Your task to perform on an android device: Clear the cart on bestbuy.com. Search for panasonic triple a on bestbuy.com, select the first entry, add it to the cart, then select checkout. Image 0: 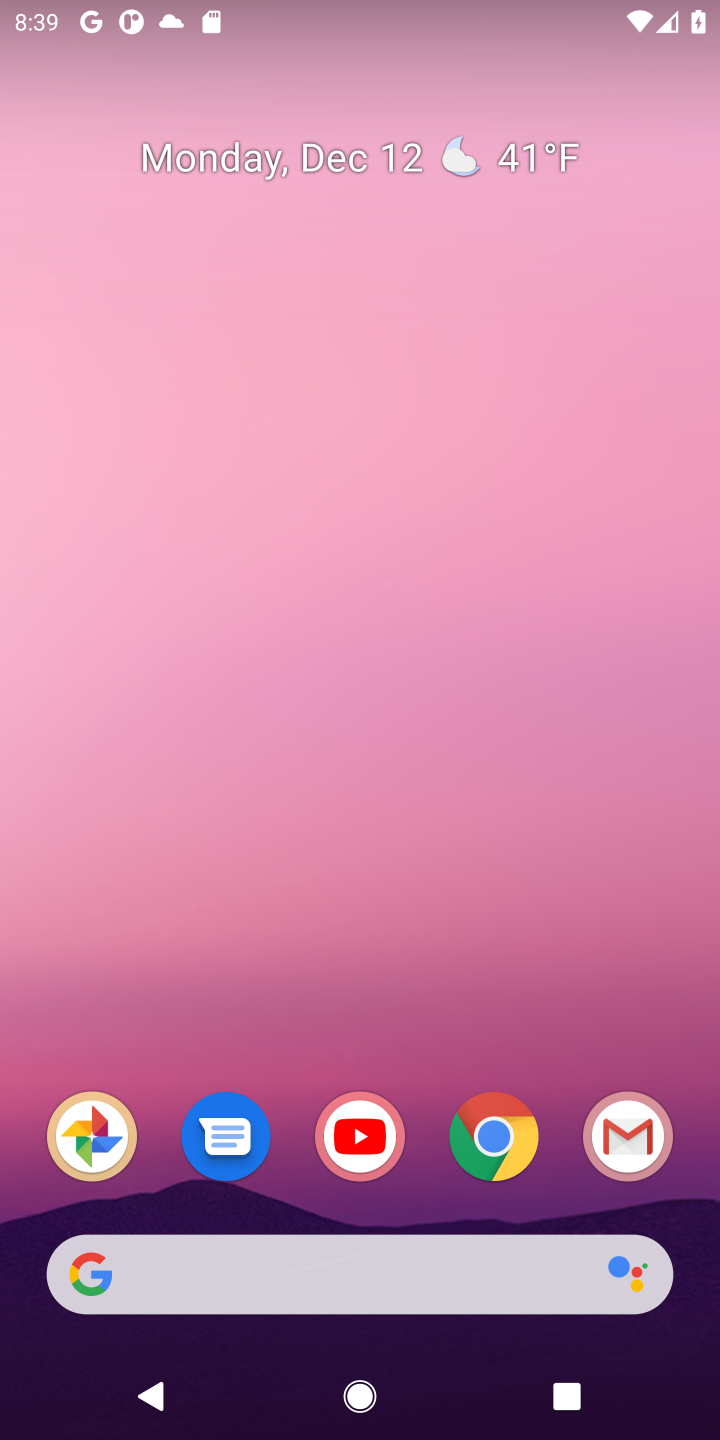
Step 0: click (498, 1143)
Your task to perform on an android device: Clear the cart on bestbuy.com. Search for panasonic triple a on bestbuy.com, select the first entry, add it to the cart, then select checkout. Image 1: 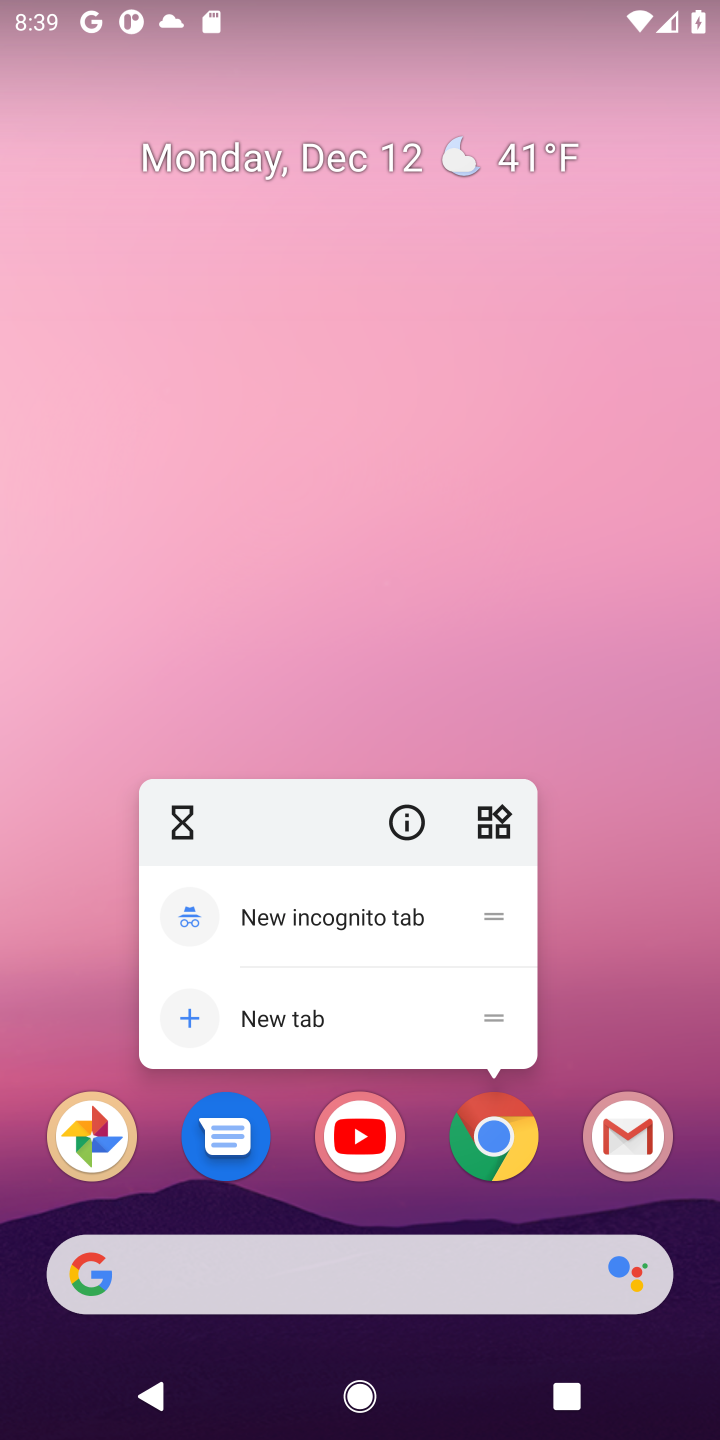
Step 1: click (498, 1143)
Your task to perform on an android device: Clear the cart on bestbuy.com. Search for panasonic triple a on bestbuy.com, select the first entry, add it to the cart, then select checkout. Image 2: 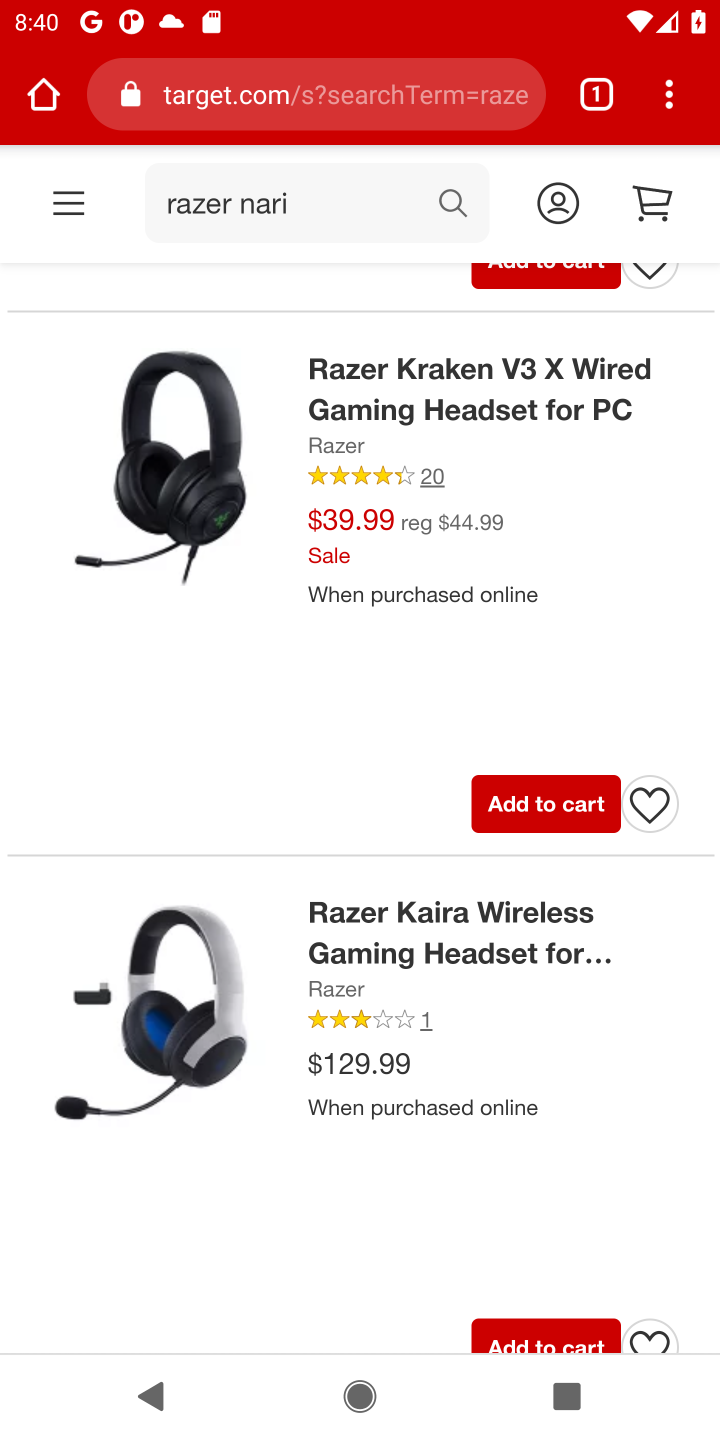
Step 2: click (261, 110)
Your task to perform on an android device: Clear the cart on bestbuy.com. Search for panasonic triple a on bestbuy.com, select the first entry, add it to the cart, then select checkout. Image 3: 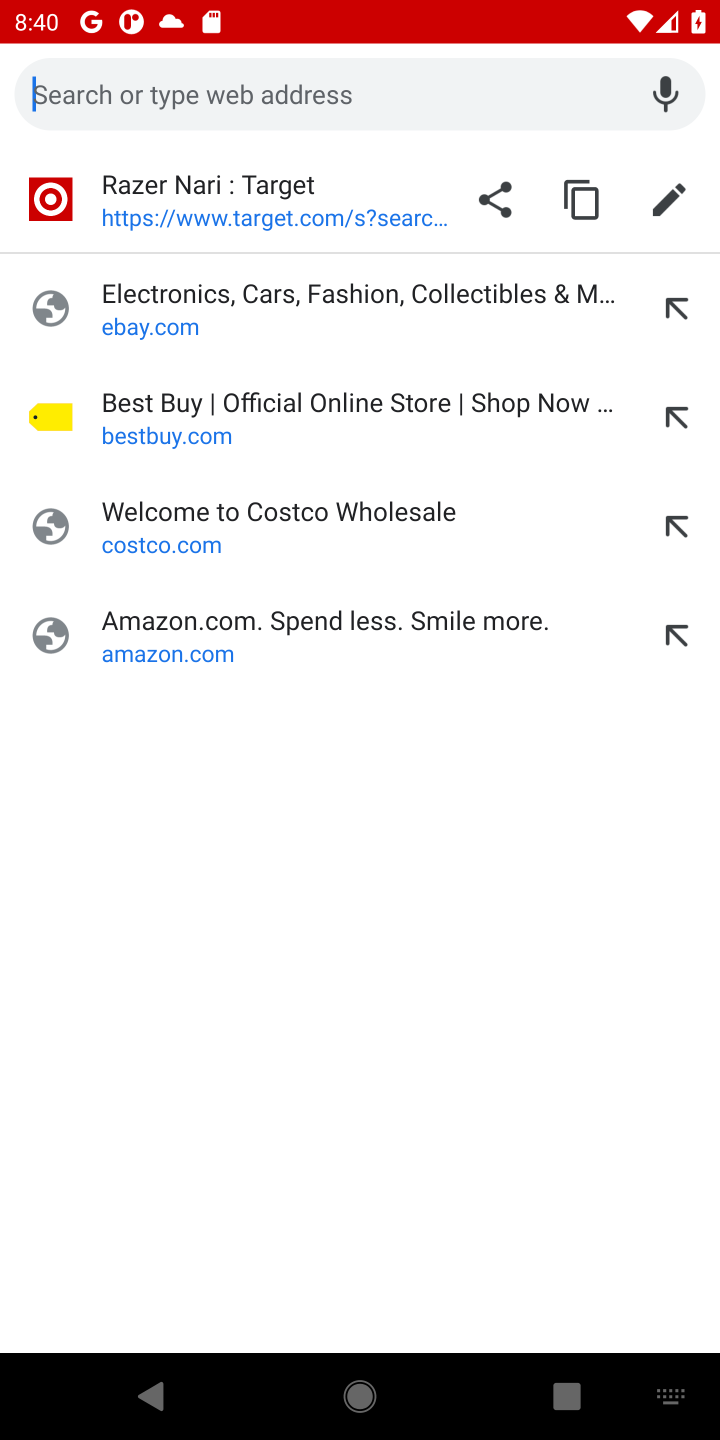
Step 3: click (135, 430)
Your task to perform on an android device: Clear the cart on bestbuy.com. Search for panasonic triple a on bestbuy.com, select the first entry, add it to the cart, then select checkout. Image 4: 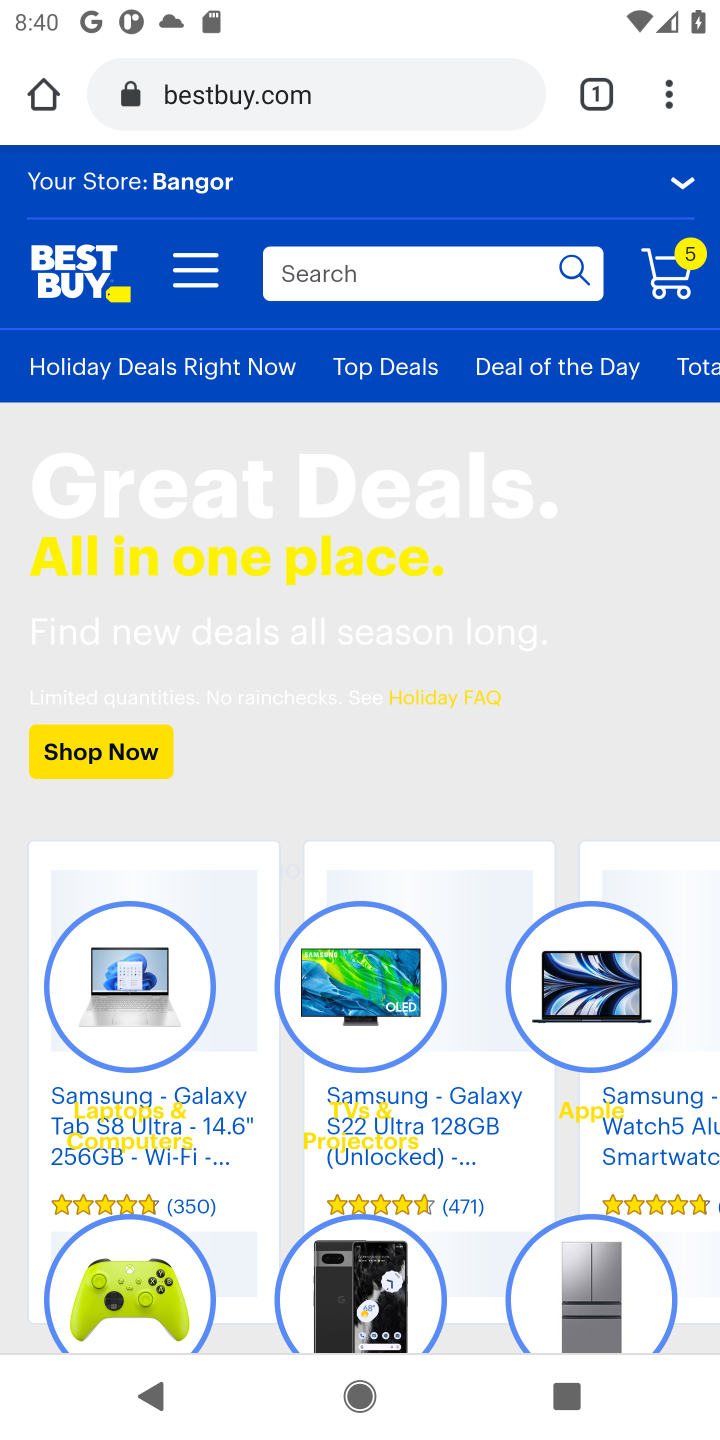
Step 4: click (679, 275)
Your task to perform on an android device: Clear the cart on bestbuy.com. Search for panasonic triple a on bestbuy.com, select the first entry, add it to the cart, then select checkout. Image 5: 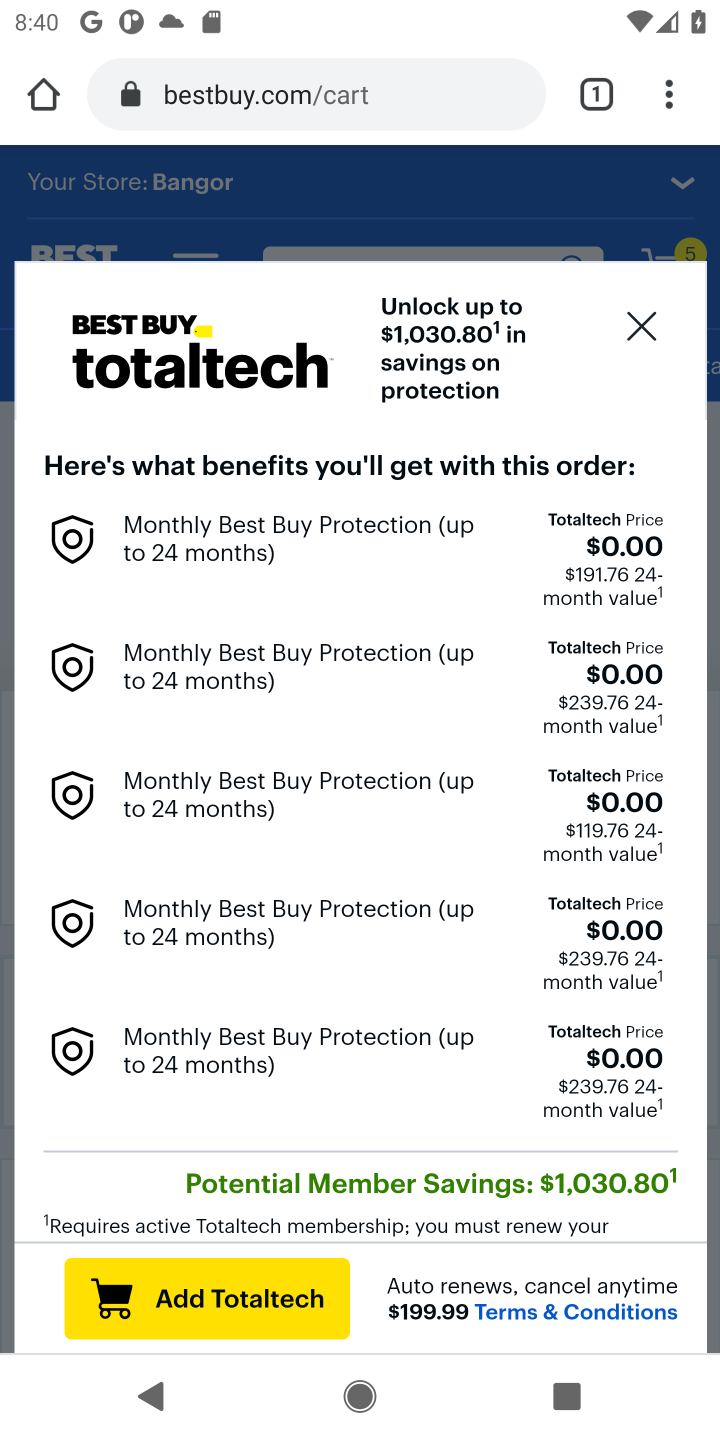
Step 5: click (651, 314)
Your task to perform on an android device: Clear the cart on bestbuy.com. Search for panasonic triple a on bestbuy.com, select the first entry, add it to the cart, then select checkout. Image 6: 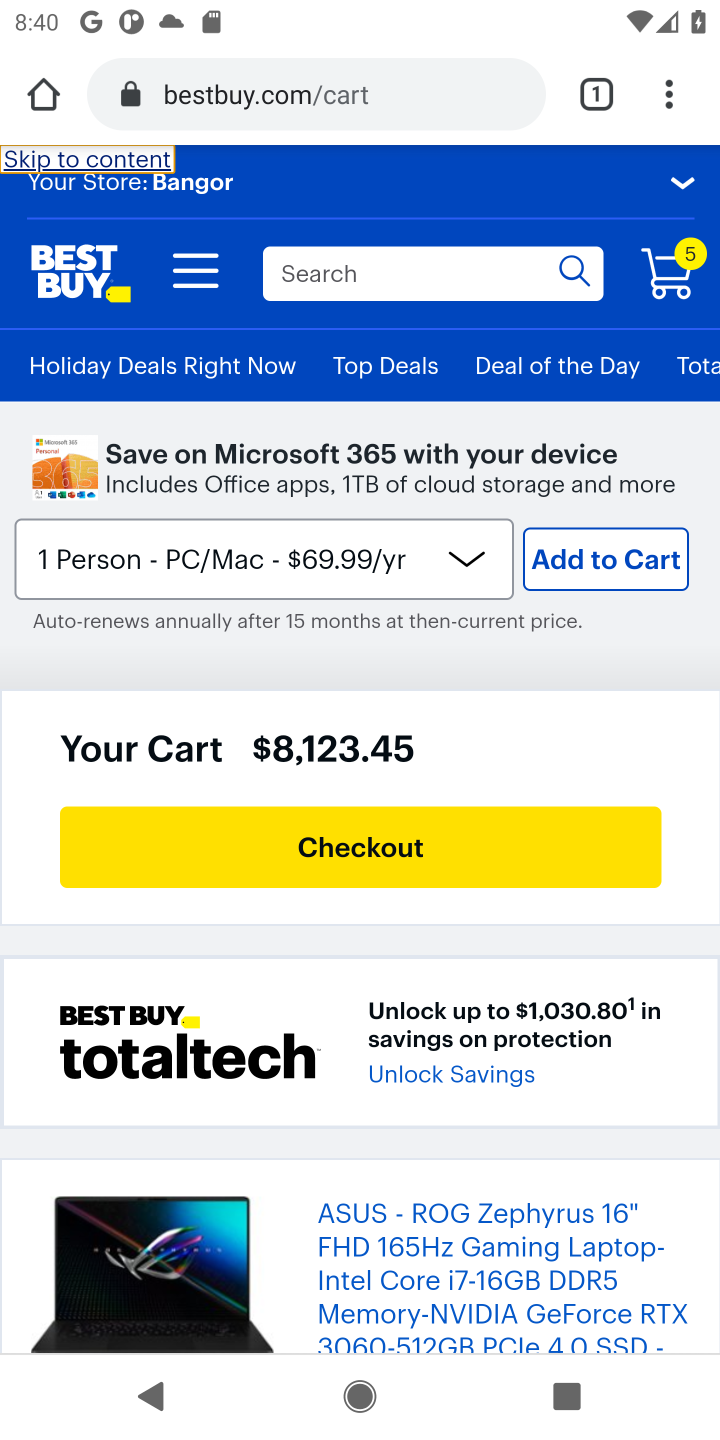
Step 6: drag from (361, 896) to (376, 417)
Your task to perform on an android device: Clear the cart on bestbuy.com. Search for panasonic triple a on bestbuy.com, select the first entry, add it to the cart, then select checkout. Image 7: 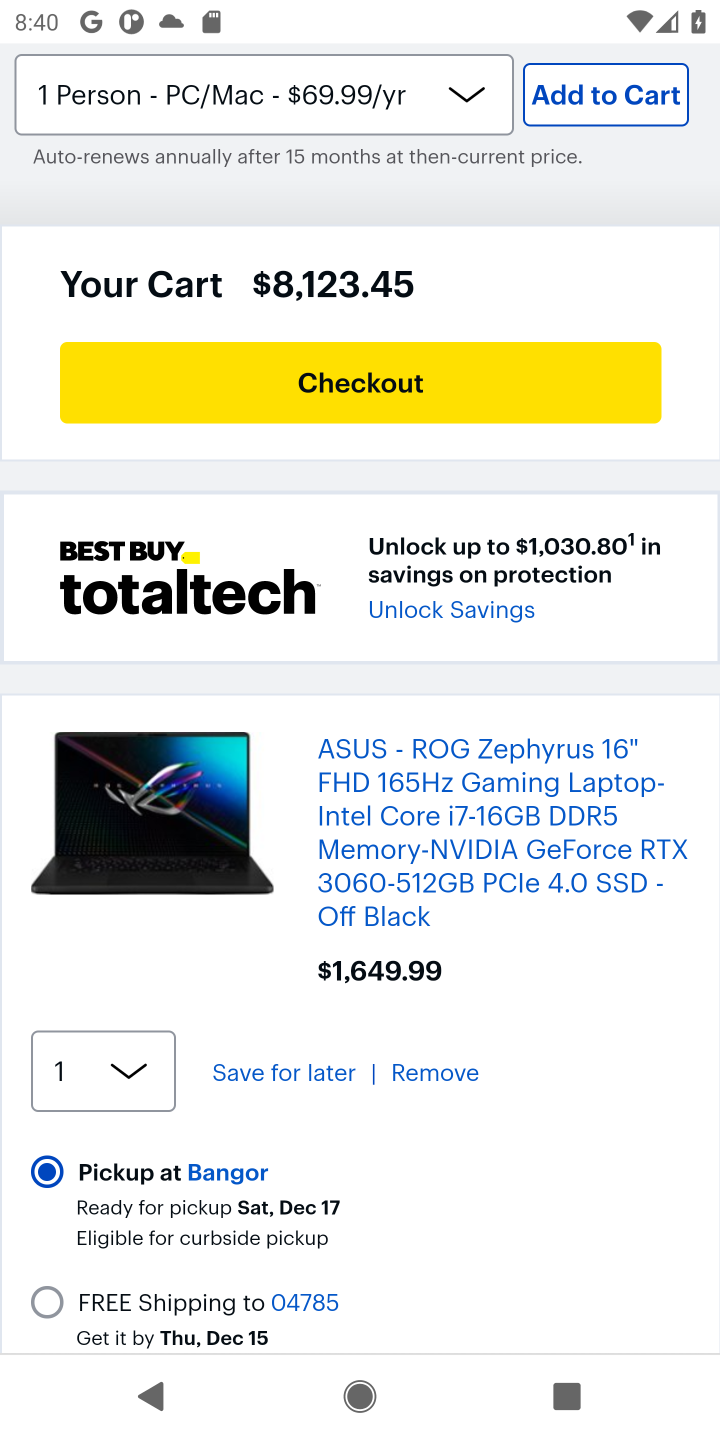
Step 7: click (432, 1082)
Your task to perform on an android device: Clear the cart on bestbuy.com. Search for panasonic triple a on bestbuy.com, select the first entry, add it to the cart, then select checkout. Image 8: 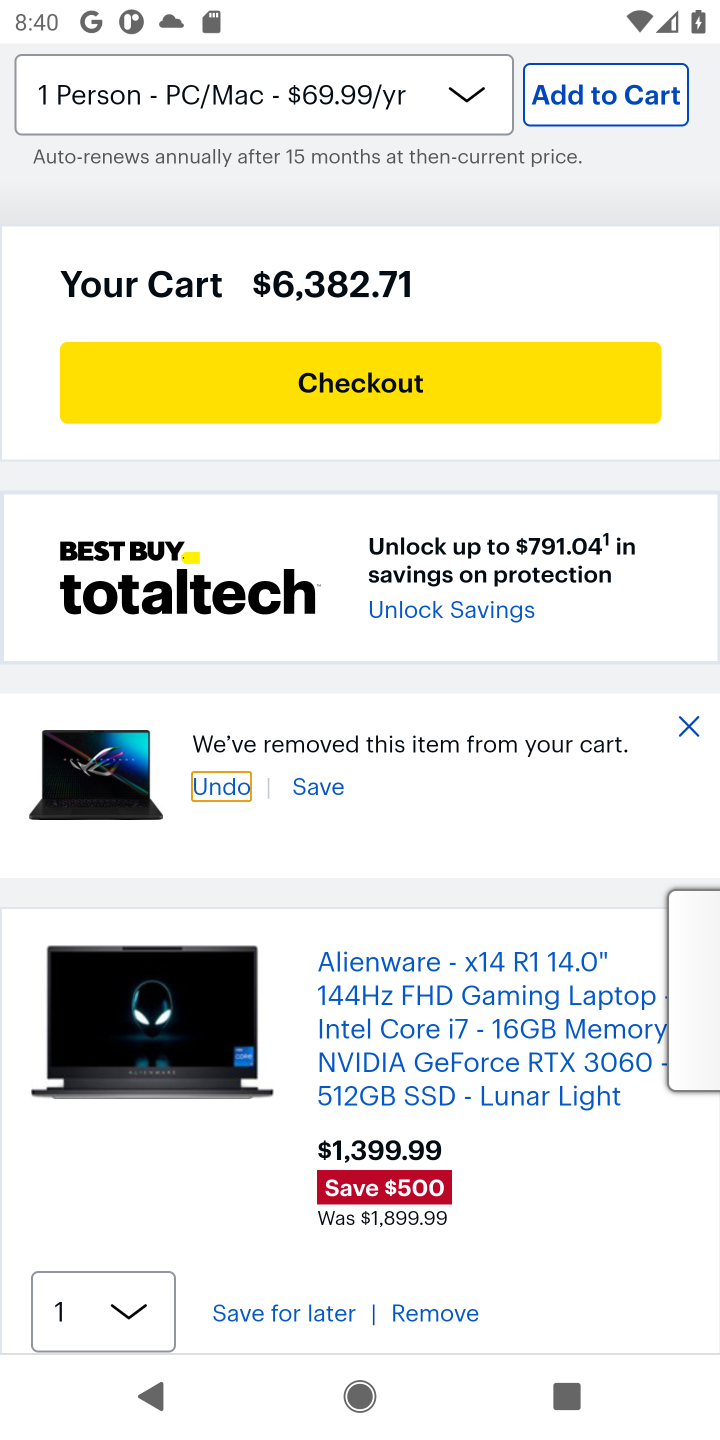
Step 8: drag from (458, 827) to (449, 605)
Your task to perform on an android device: Clear the cart on bestbuy.com. Search for panasonic triple a on bestbuy.com, select the first entry, add it to the cart, then select checkout. Image 9: 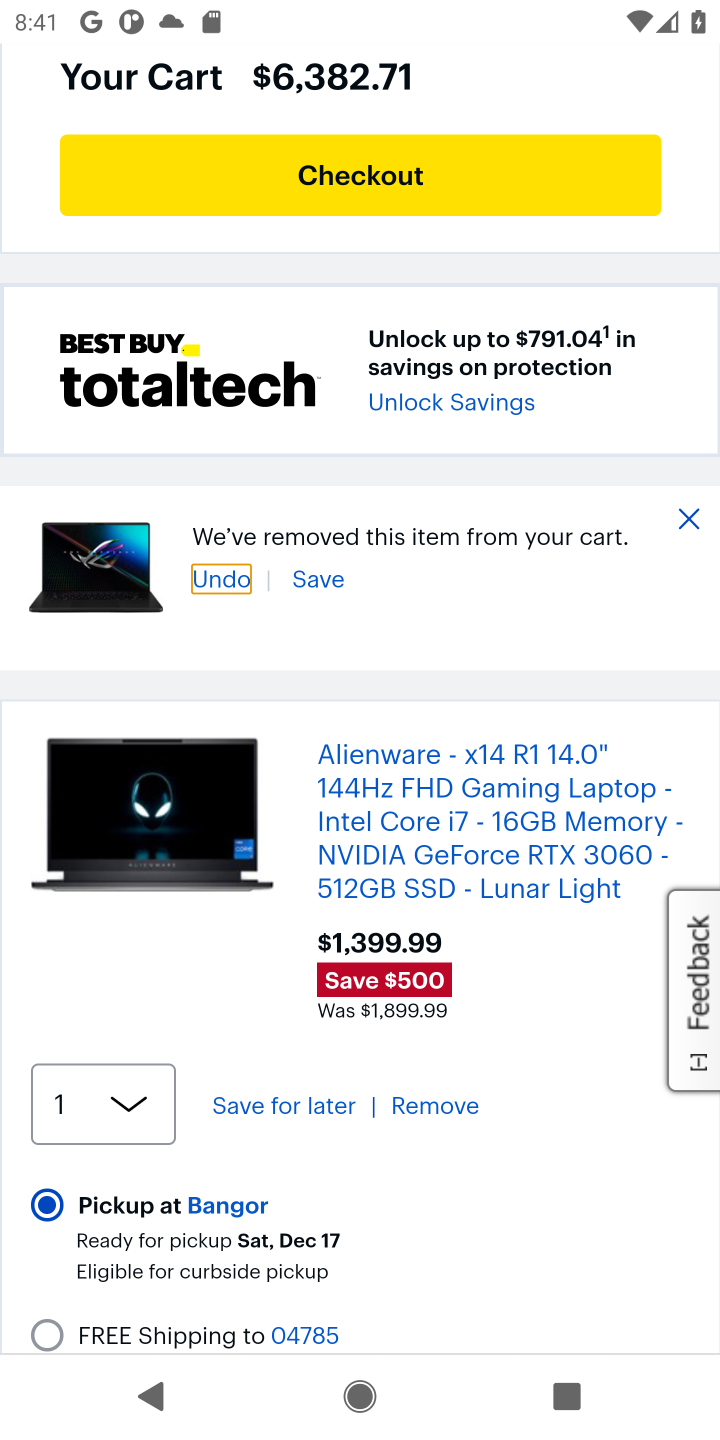
Step 9: click (419, 1111)
Your task to perform on an android device: Clear the cart on bestbuy.com. Search for panasonic triple a on bestbuy.com, select the first entry, add it to the cart, then select checkout. Image 10: 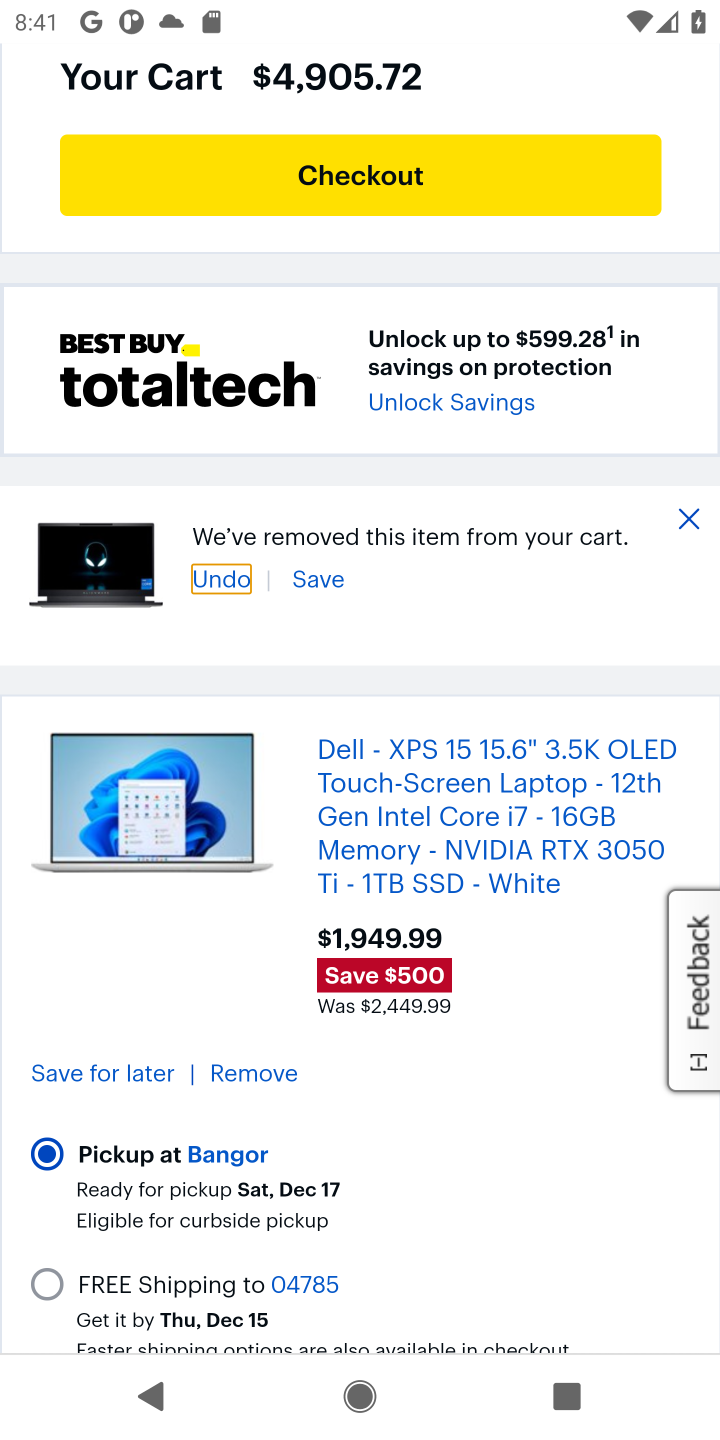
Step 10: click (262, 1076)
Your task to perform on an android device: Clear the cart on bestbuy.com. Search for panasonic triple a on bestbuy.com, select the first entry, add it to the cart, then select checkout. Image 11: 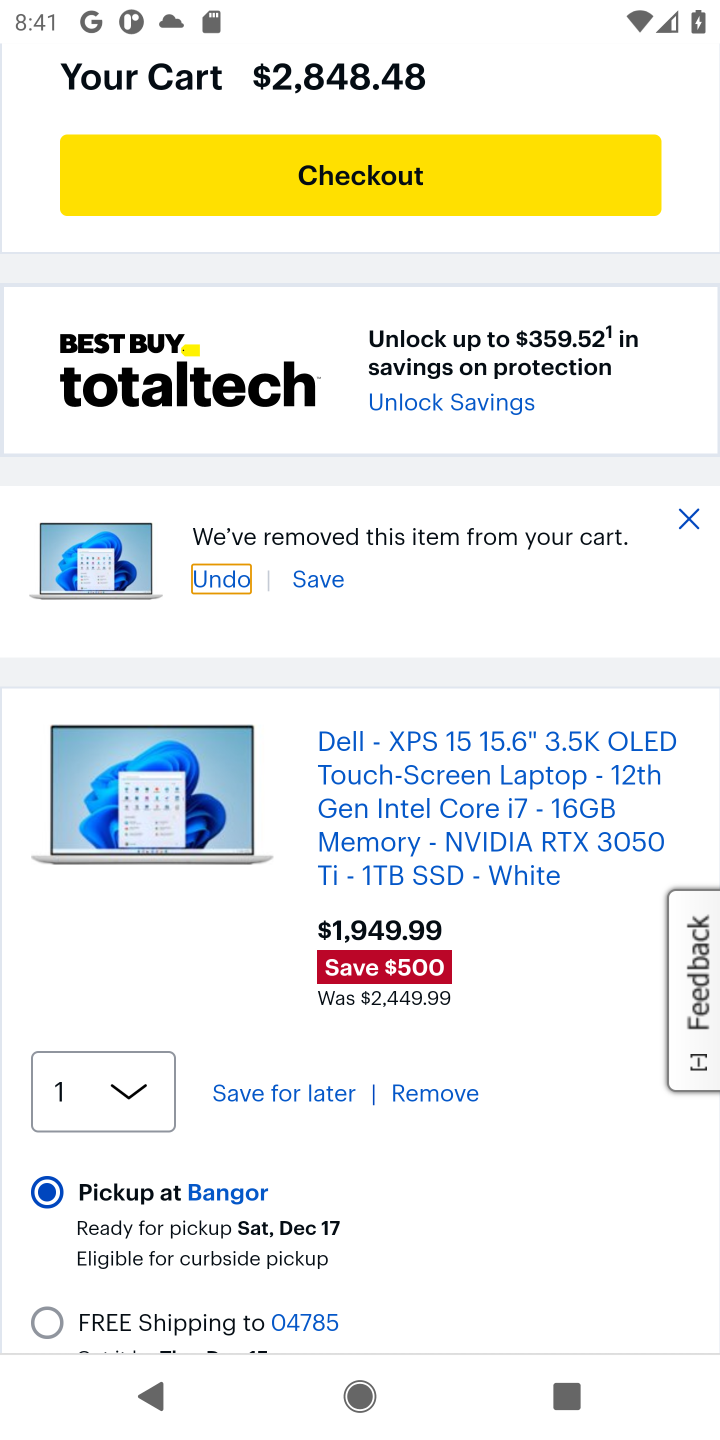
Step 11: click (426, 1099)
Your task to perform on an android device: Clear the cart on bestbuy.com. Search for panasonic triple a on bestbuy.com, select the first entry, add it to the cart, then select checkout. Image 12: 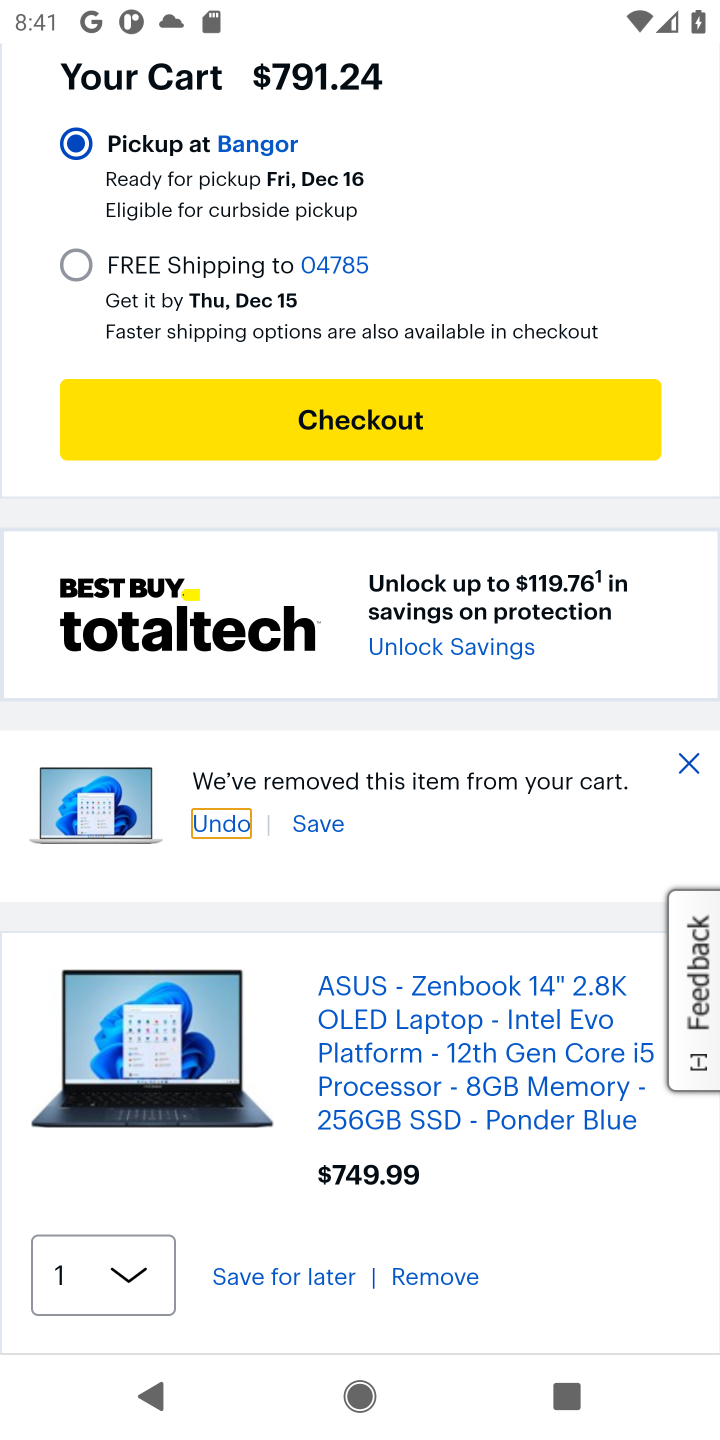
Step 12: click (409, 1274)
Your task to perform on an android device: Clear the cart on bestbuy.com. Search for panasonic triple a on bestbuy.com, select the first entry, add it to the cart, then select checkout. Image 13: 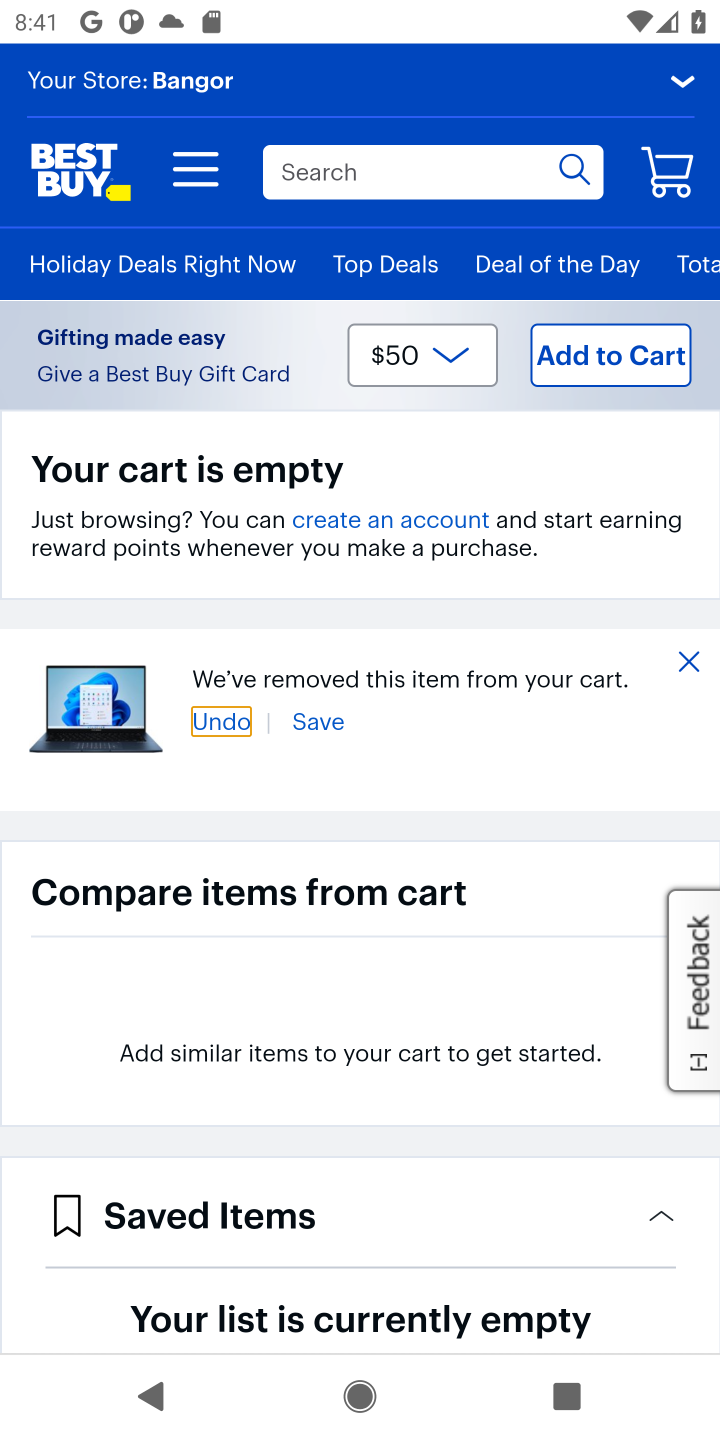
Step 13: click (350, 177)
Your task to perform on an android device: Clear the cart on bestbuy.com. Search for panasonic triple a on bestbuy.com, select the first entry, add it to the cart, then select checkout. Image 14: 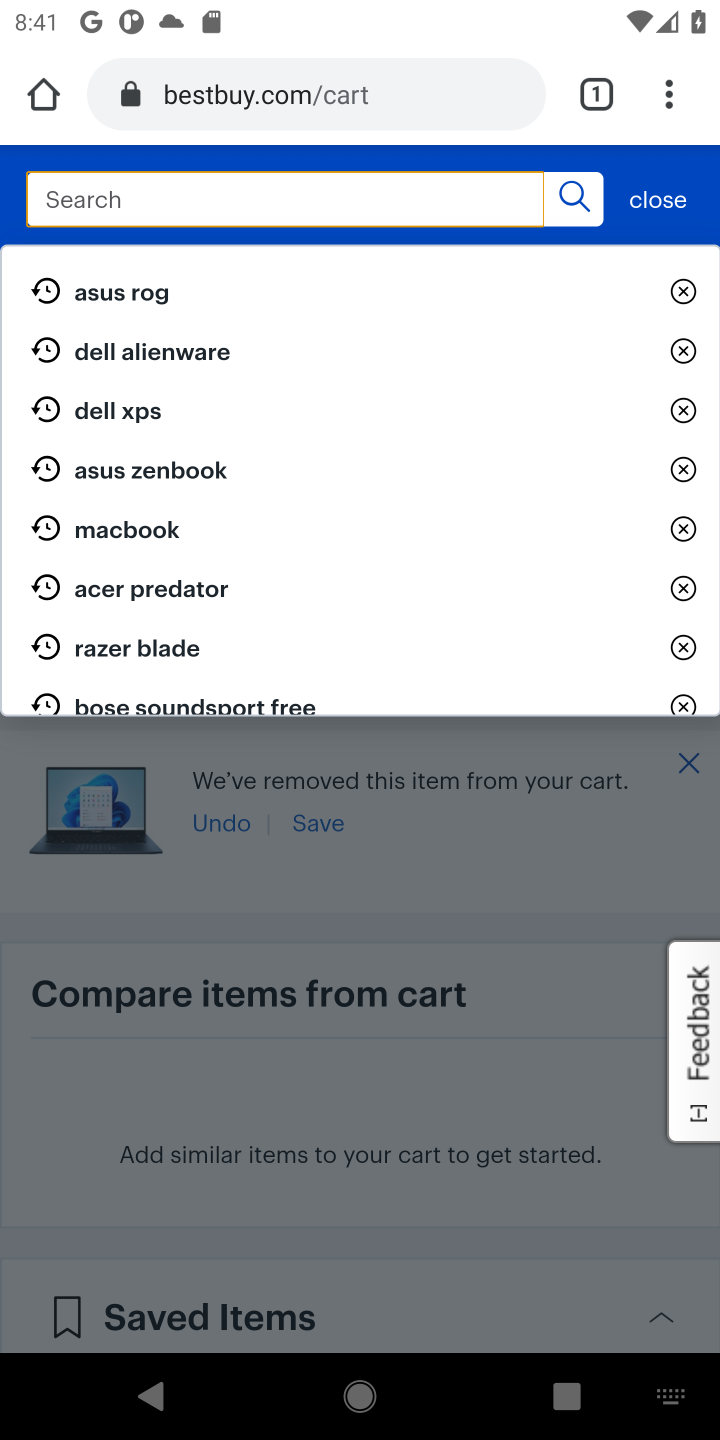
Step 14: type "panasonic triple a "
Your task to perform on an android device: Clear the cart on bestbuy.com. Search for panasonic triple a on bestbuy.com, select the first entry, add it to the cart, then select checkout. Image 15: 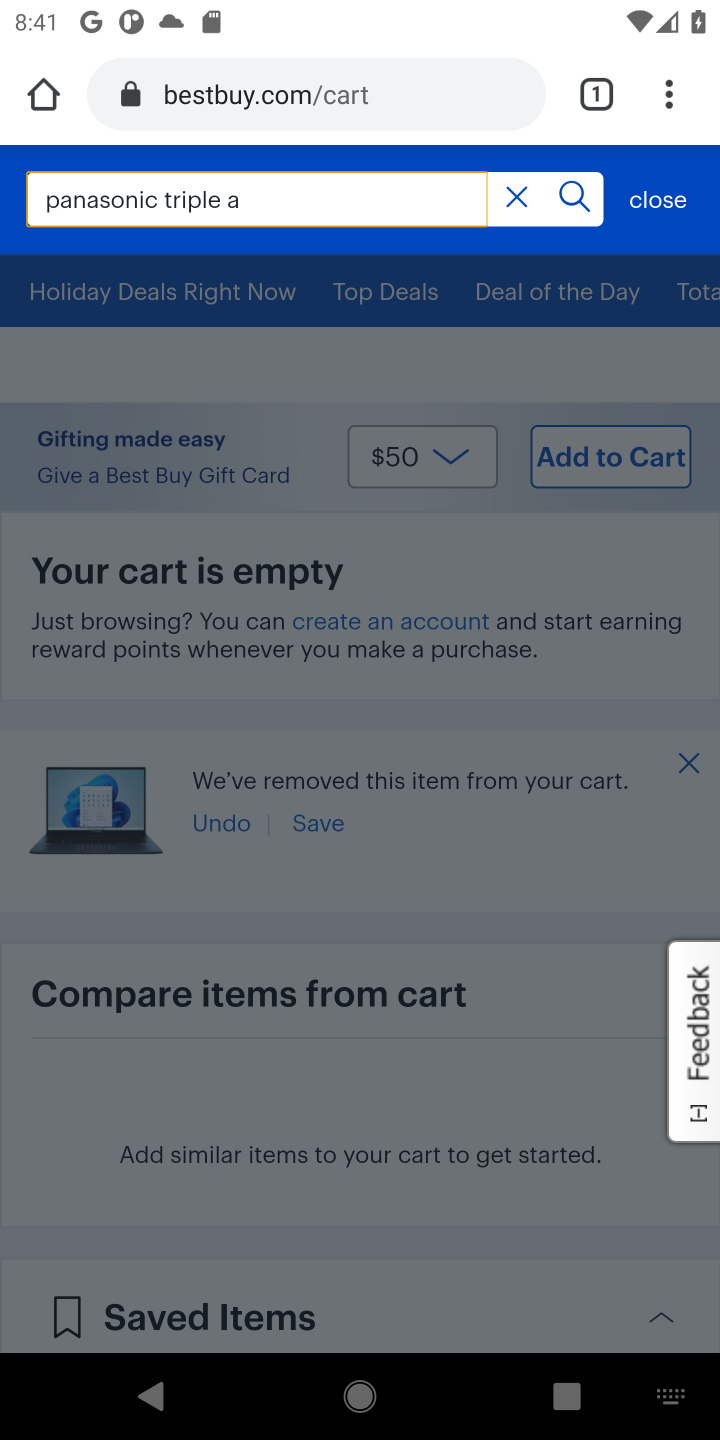
Step 15: click (577, 200)
Your task to perform on an android device: Clear the cart on bestbuy.com. Search for panasonic triple a on bestbuy.com, select the first entry, add it to the cart, then select checkout. Image 16: 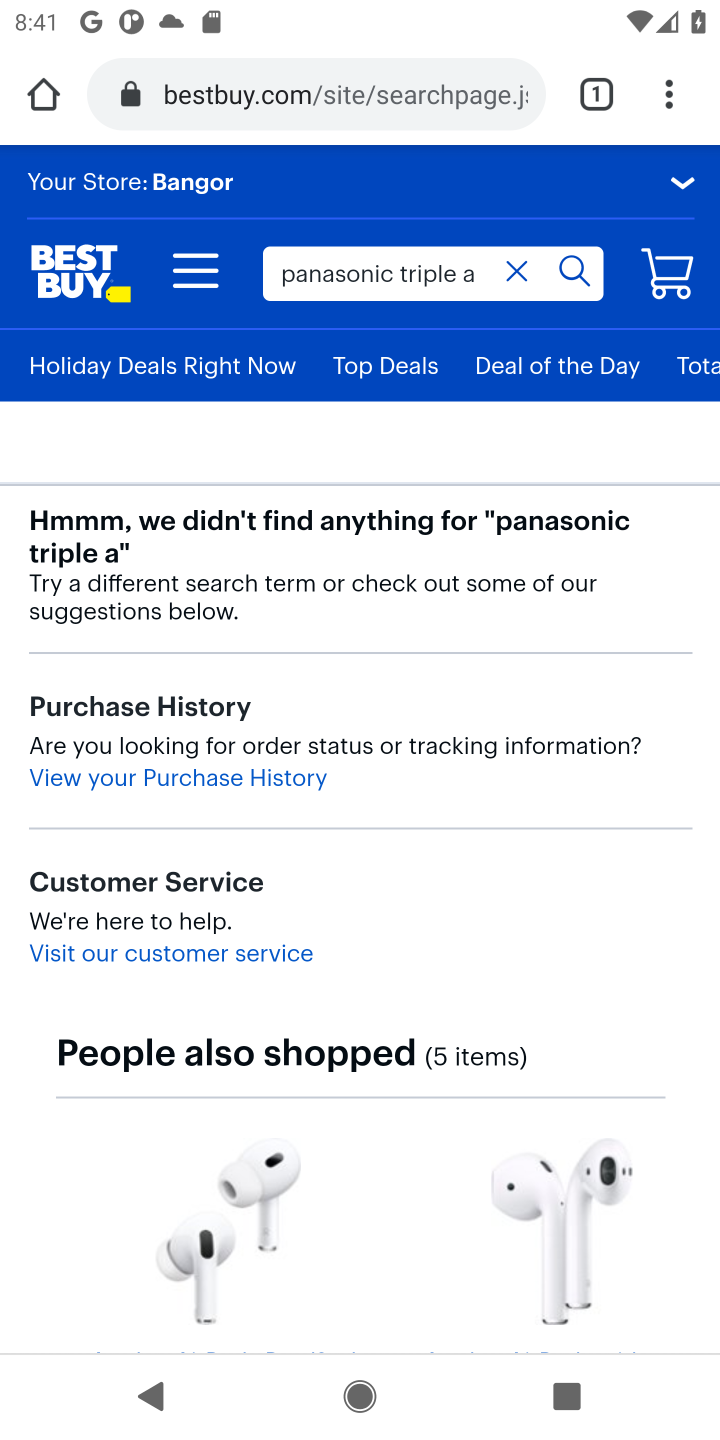
Step 16: task complete